Your task to perform on an android device: uninstall "Microsoft Authenticator" Image 0: 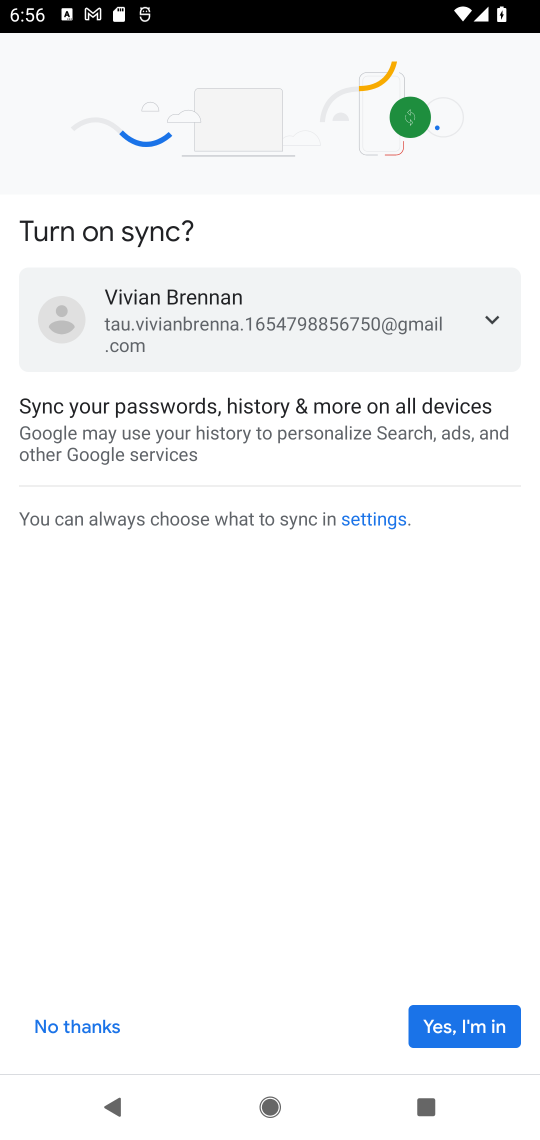
Step 0: press back button
Your task to perform on an android device: uninstall "Microsoft Authenticator" Image 1: 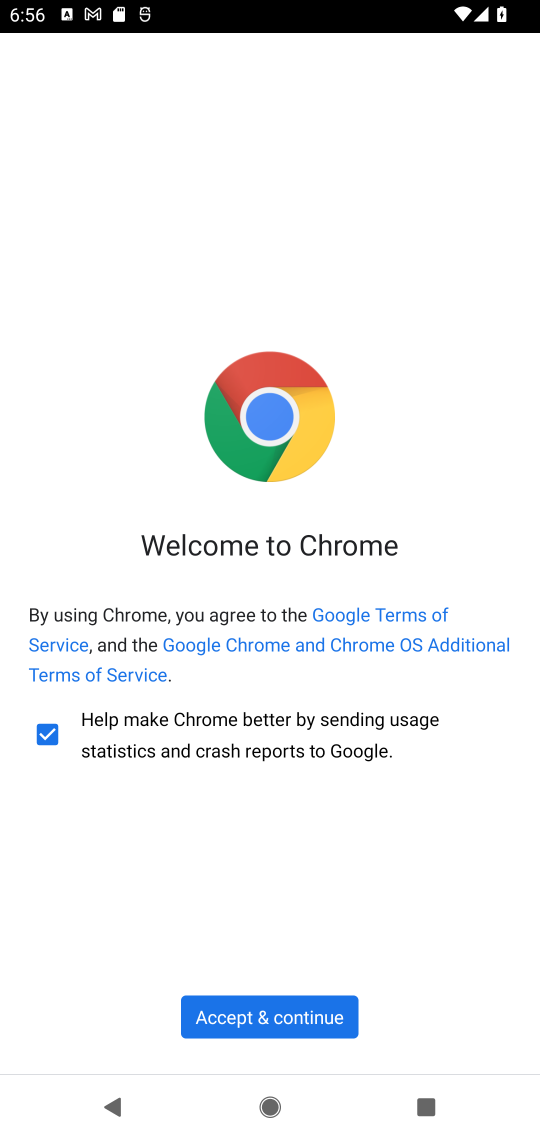
Step 1: press back button
Your task to perform on an android device: uninstall "Microsoft Authenticator" Image 2: 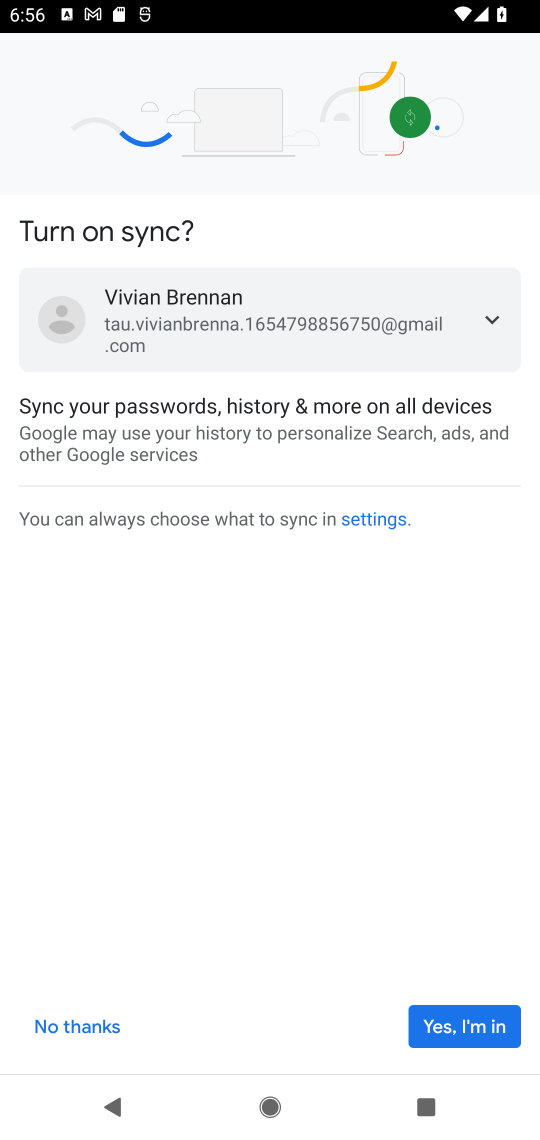
Step 2: press back button
Your task to perform on an android device: uninstall "Microsoft Authenticator" Image 3: 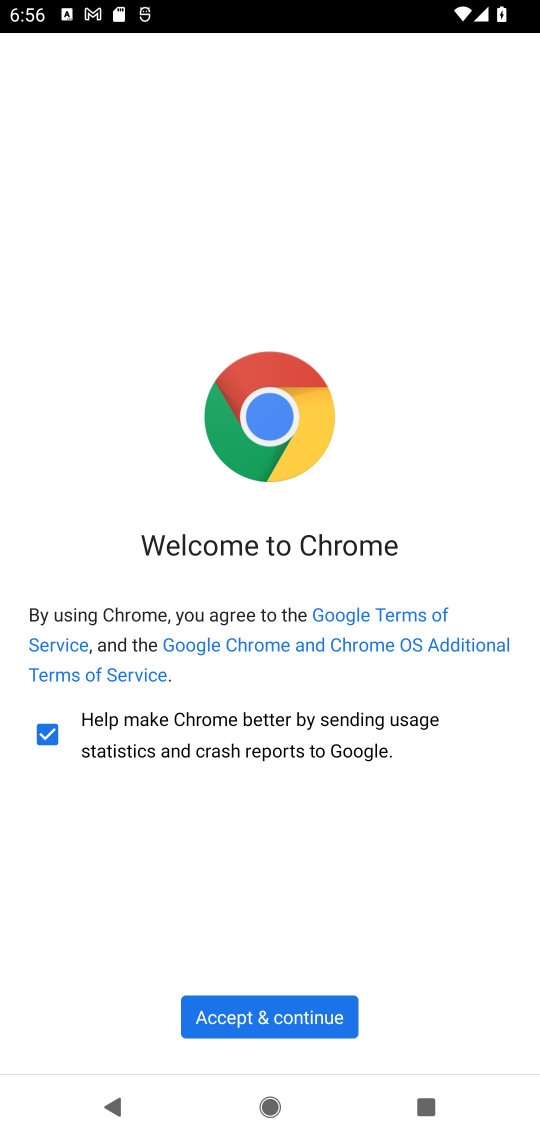
Step 3: press home button
Your task to perform on an android device: uninstall "Microsoft Authenticator" Image 4: 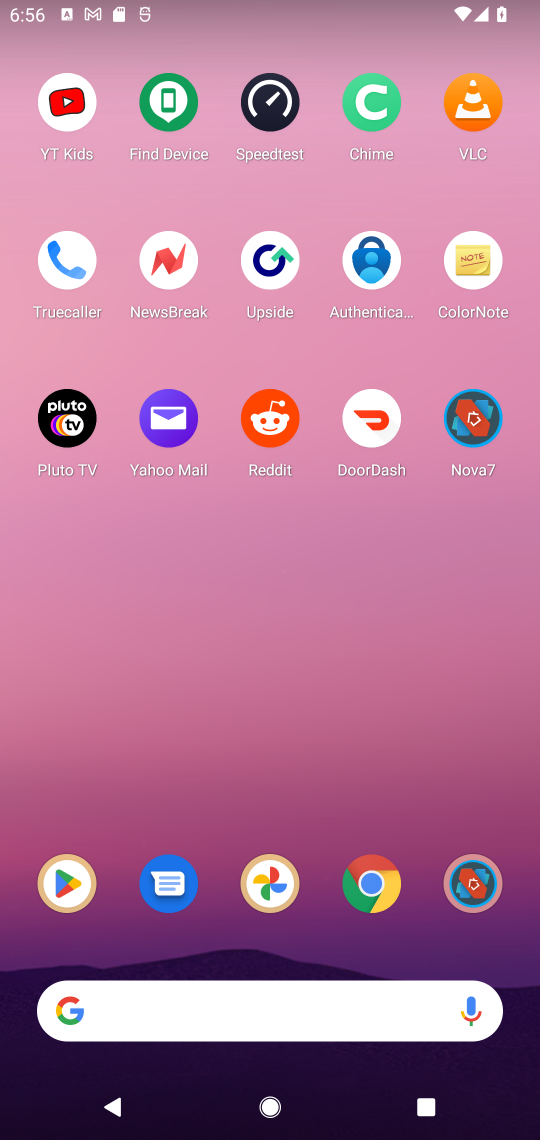
Step 4: click (51, 883)
Your task to perform on an android device: uninstall "Microsoft Authenticator" Image 5: 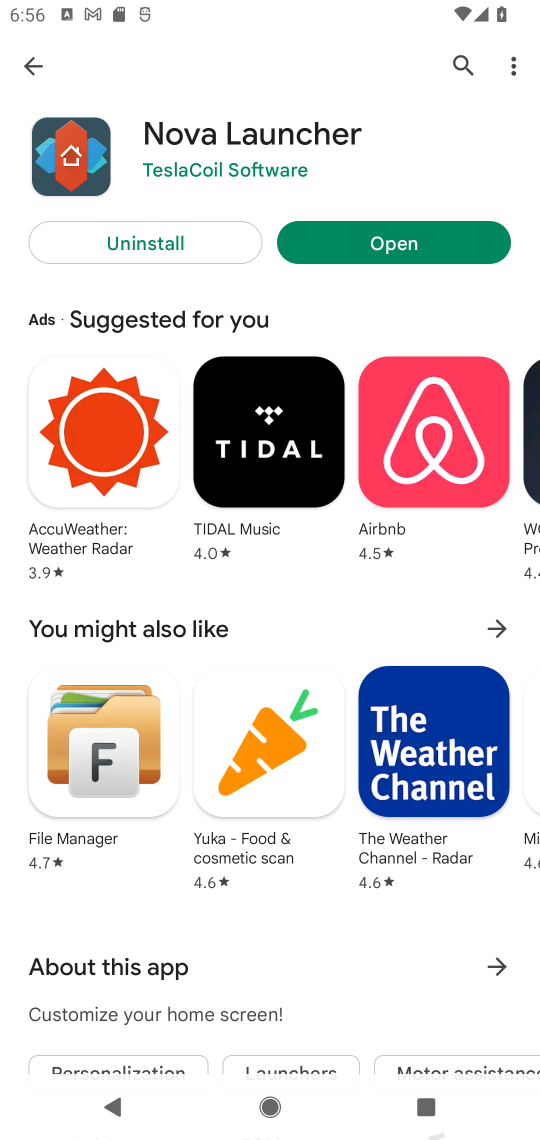
Step 5: click (457, 58)
Your task to perform on an android device: uninstall "Microsoft Authenticator" Image 6: 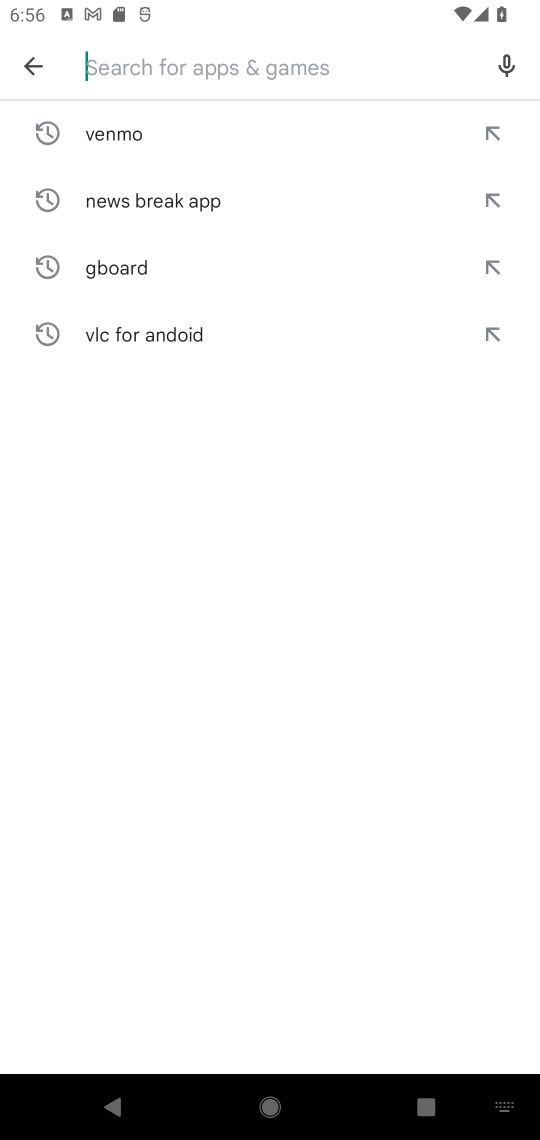
Step 6: click (241, 76)
Your task to perform on an android device: uninstall "Microsoft Authenticator" Image 7: 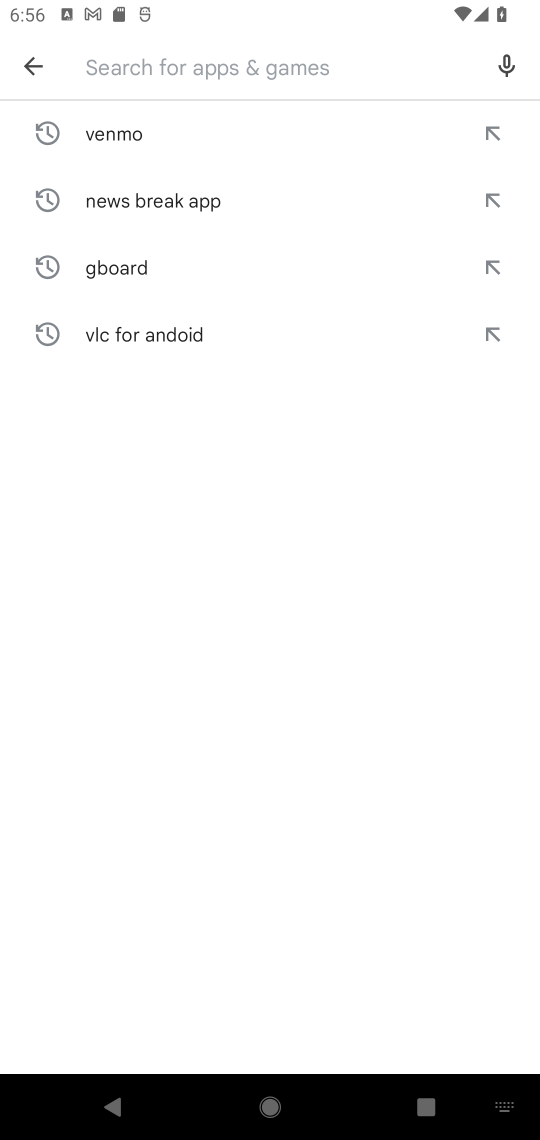
Step 7: type "microsoft authen"
Your task to perform on an android device: uninstall "Microsoft Authenticator" Image 8: 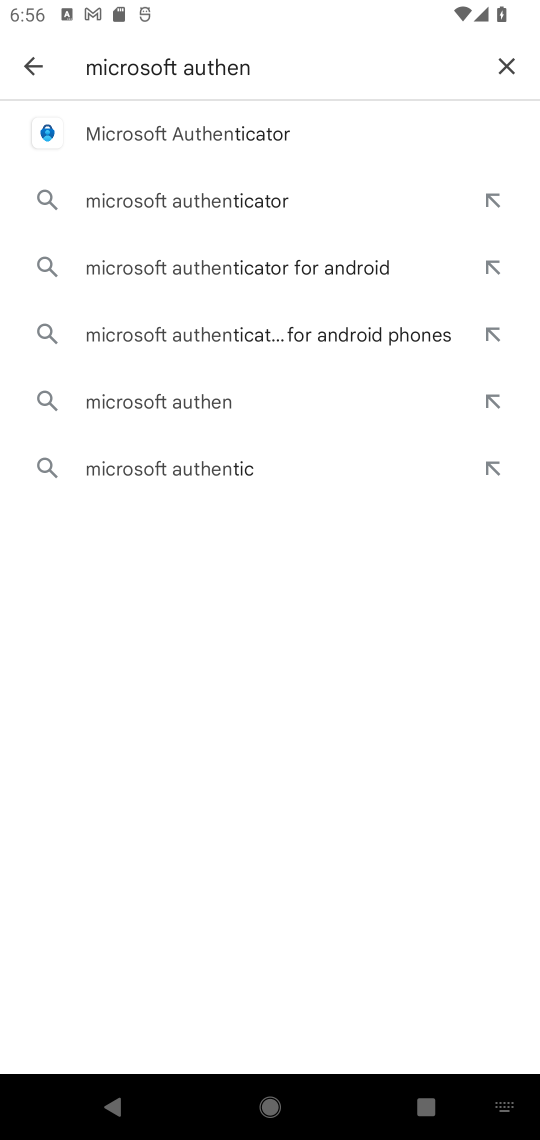
Step 8: click (247, 123)
Your task to perform on an android device: uninstall "Microsoft Authenticator" Image 9: 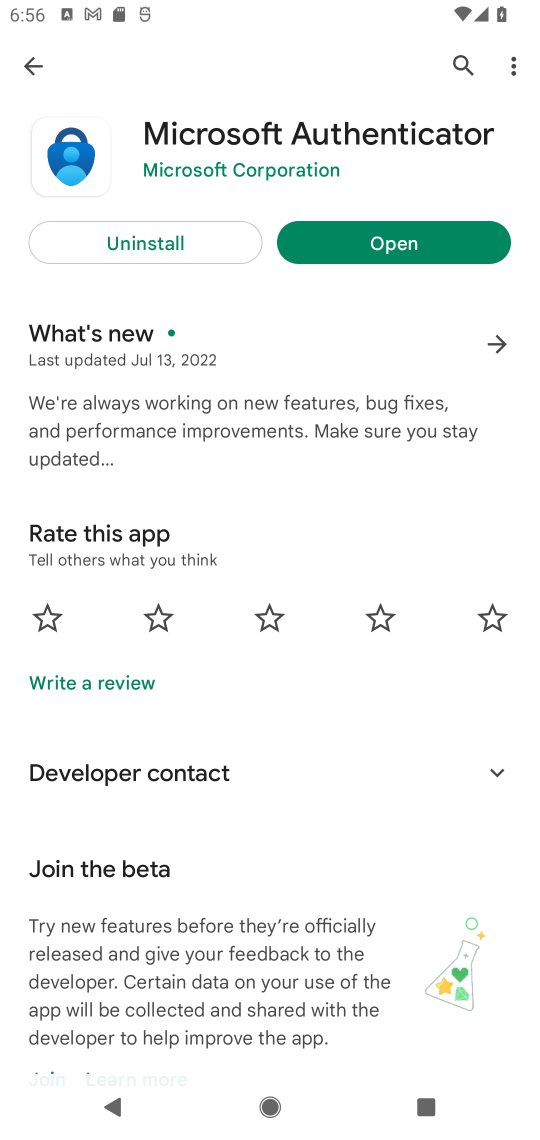
Step 9: click (168, 238)
Your task to perform on an android device: uninstall "Microsoft Authenticator" Image 10: 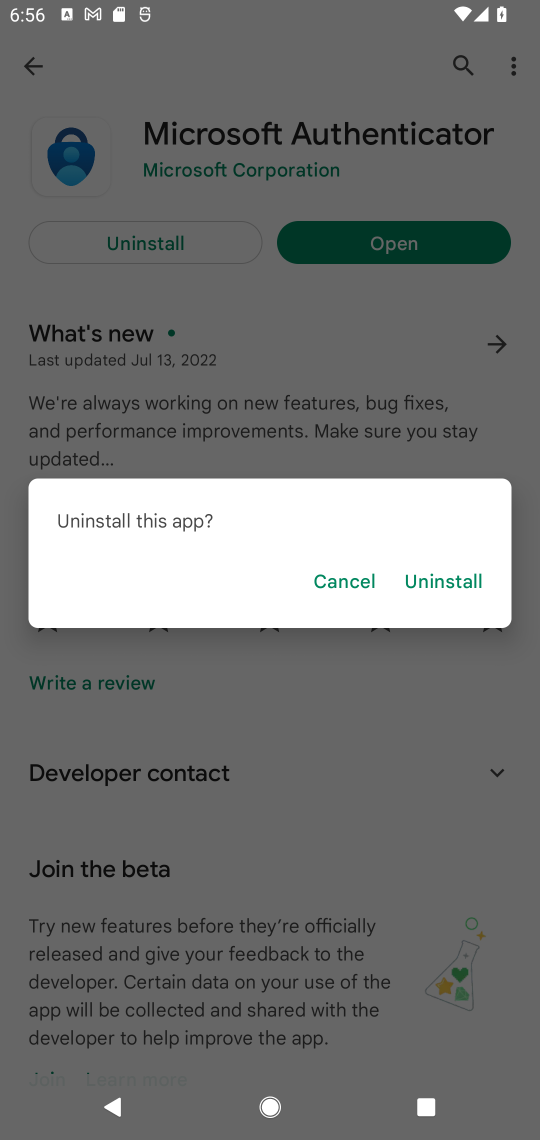
Step 10: click (436, 577)
Your task to perform on an android device: uninstall "Microsoft Authenticator" Image 11: 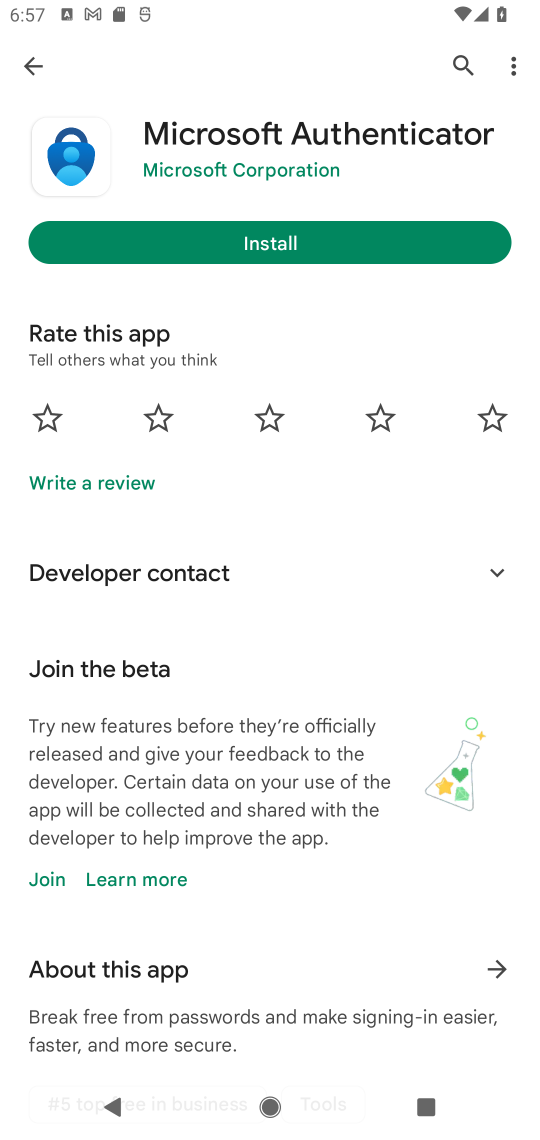
Step 11: task complete